Your task to perform on an android device: change timer sound Image 0: 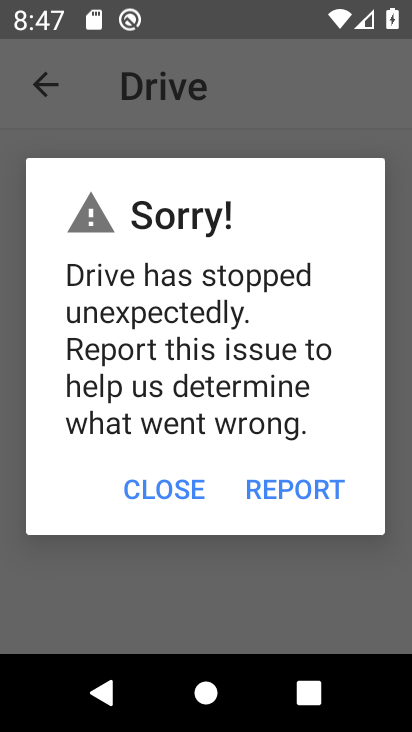
Step 0: press home button
Your task to perform on an android device: change timer sound Image 1: 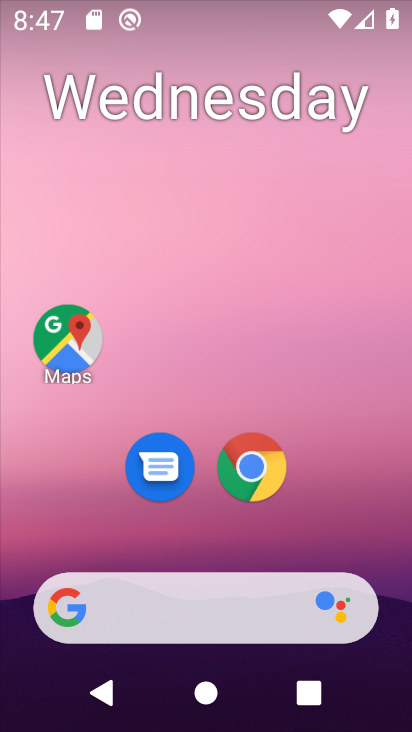
Step 1: drag from (316, 512) to (381, 57)
Your task to perform on an android device: change timer sound Image 2: 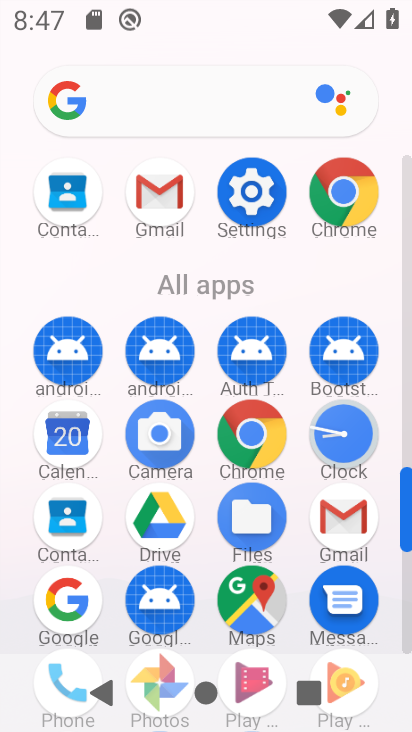
Step 2: click (355, 431)
Your task to perform on an android device: change timer sound Image 3: 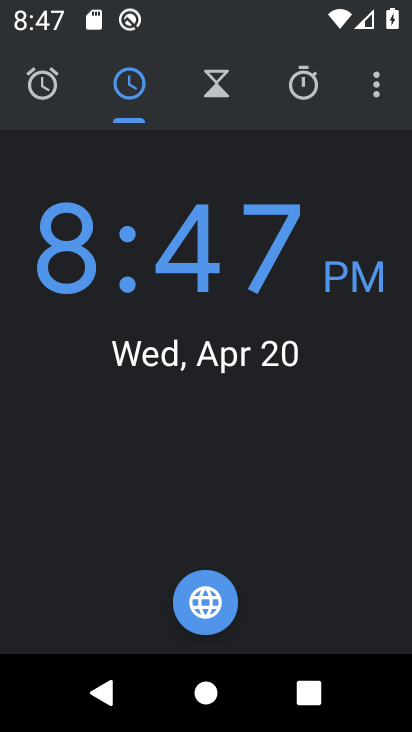
Step 3: click (381, 98)
Your task to perform on an android device: change timer sound Image 4: 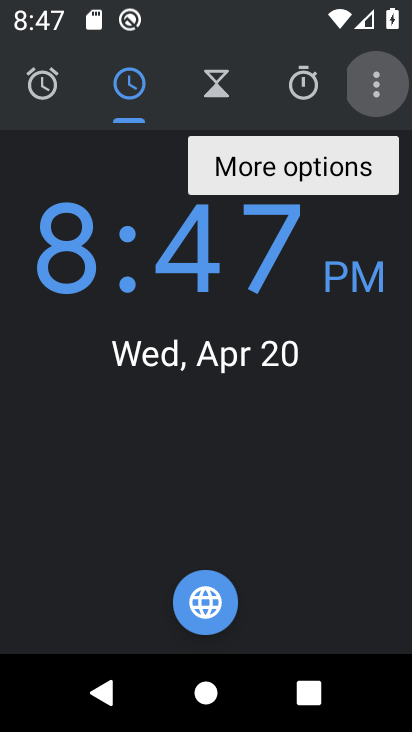
Step 4: click (381, 97)
Your task to perform on an android device: change timer sound Image 5: 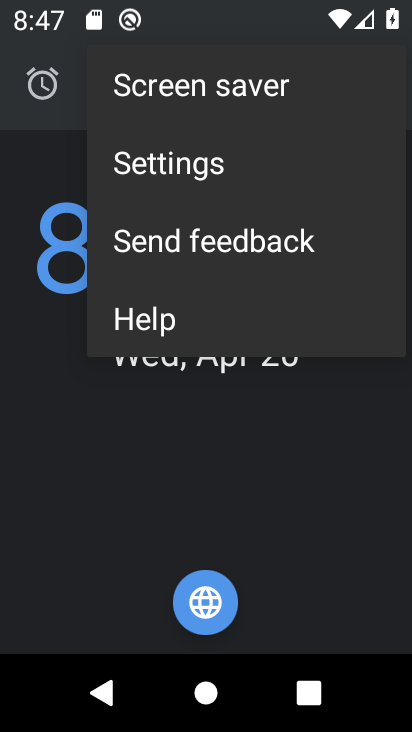
Step 5: click (164, 172)
Your task to perform on an android device: change timer sound Image 6: 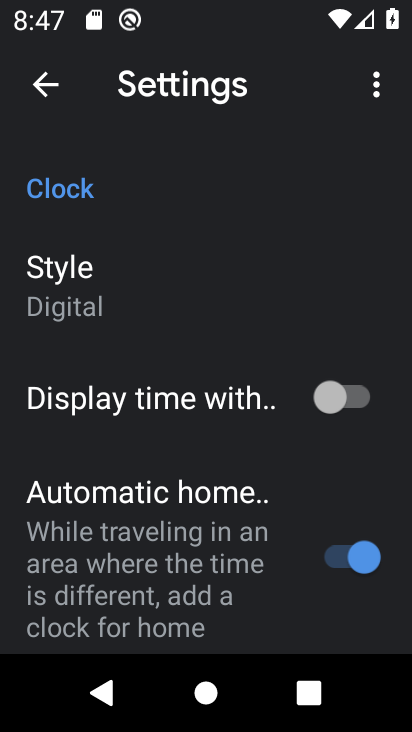
Step 6: drag from (145, 515) to (228, 211)
Your task to perform on an android device: change timer sound Image 7: 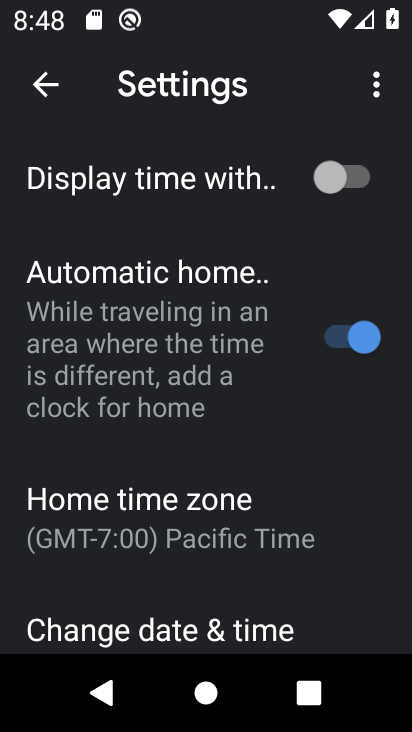
Step 7: drag from (206, 536) to (250, 212)
Your task to perform on an android device: change timer sound Image 8: 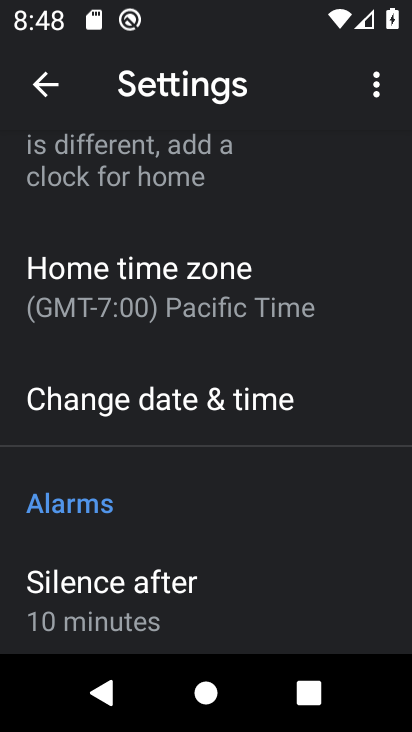
Step 8: drag from (234, 483) to (250, 224)
Your task to perform on an android device: change timer sound Image 9: 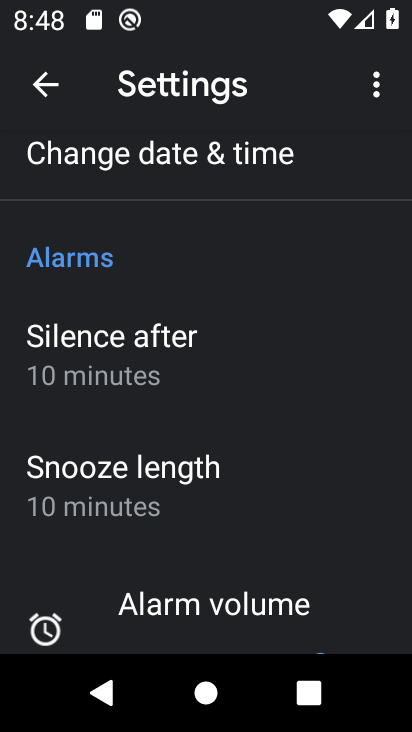
Step 9: drag from (214, 528) to (213, 269)
Your task to perform on an android device: change timer sound Image 10: 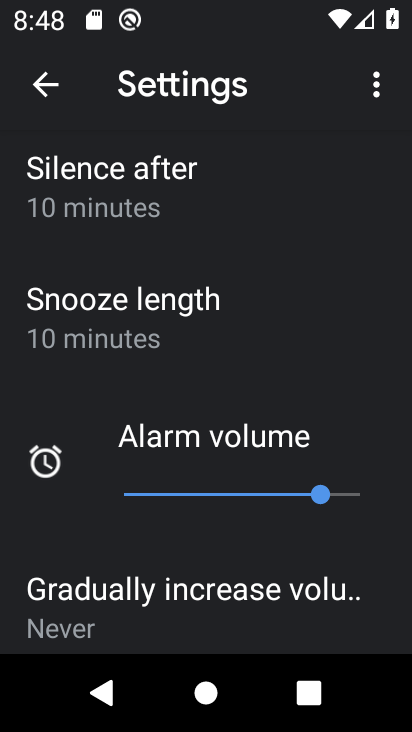
Step 10: drag from (290, 532) to (363, 233)
Your task to perform on an android device: change timer sound Image 11: 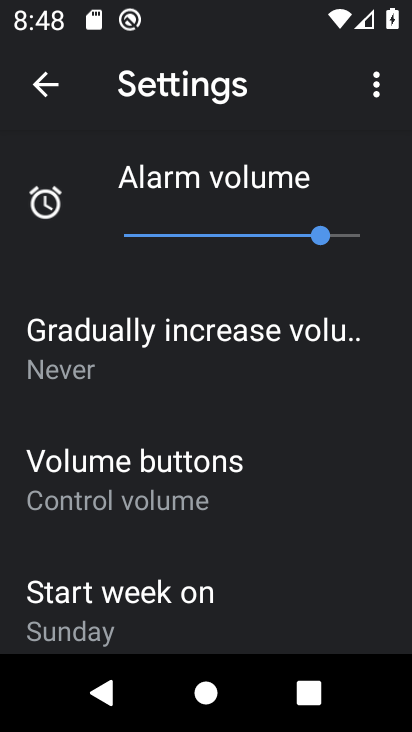
Step 11: drag from (259, 509) to (256, 205)
Your task to perform on an android device: change timer sound Image 12: 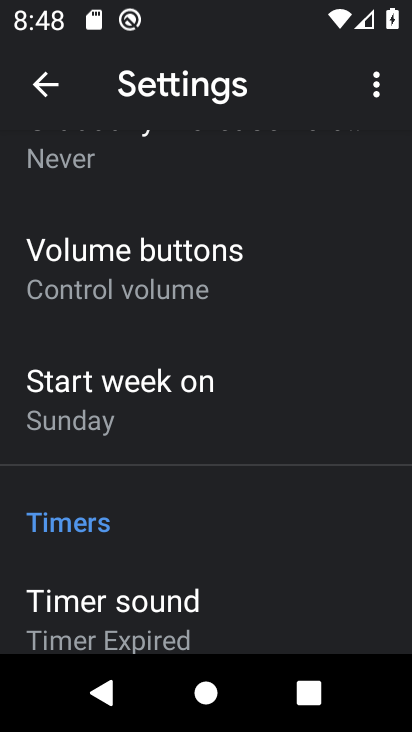
Step 12: drag from (186, 604) to (191, 259)
Your task to perform on an android device: change timer sound Image 13: 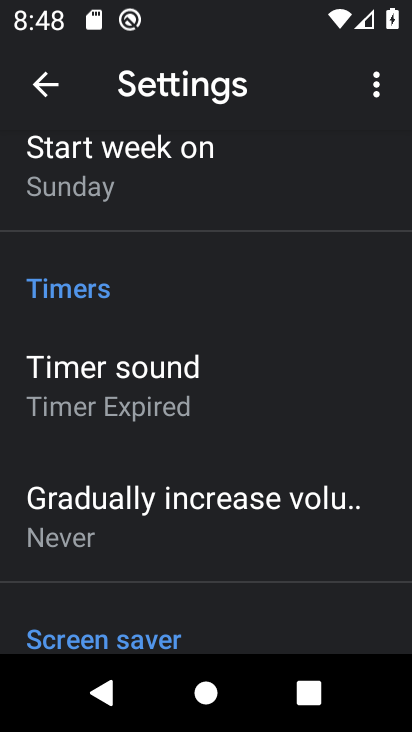
Step 13: click (162, 388)
Your task to perform on an android device: change timer sound Image 14: 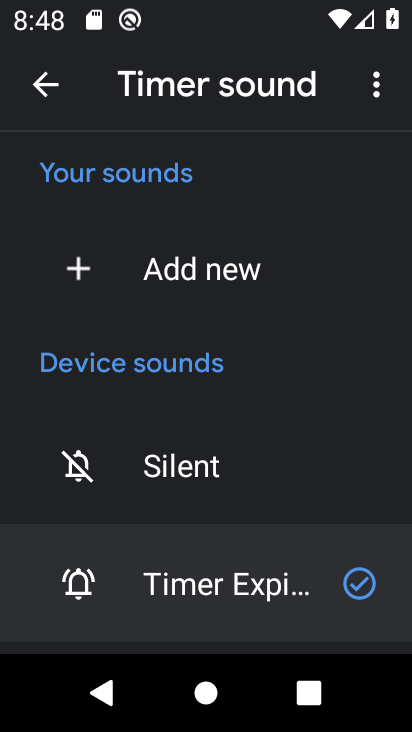
Step 14: click (207, 469)
Your task to perform on an android device: change timer sound Image 15: 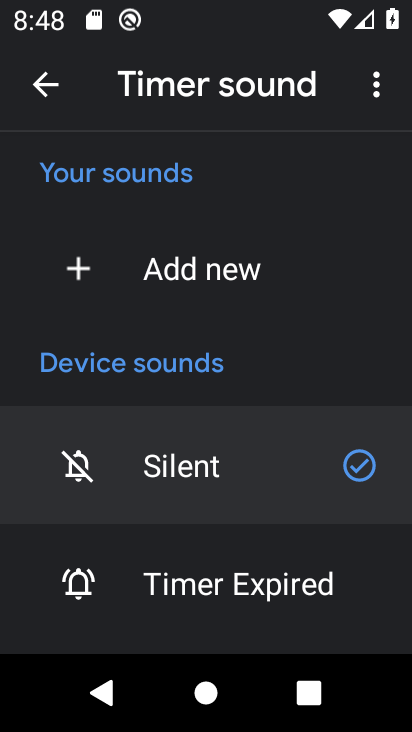
Step 15: task complete